Your task to perform on an android device: change the clock style Image 0: 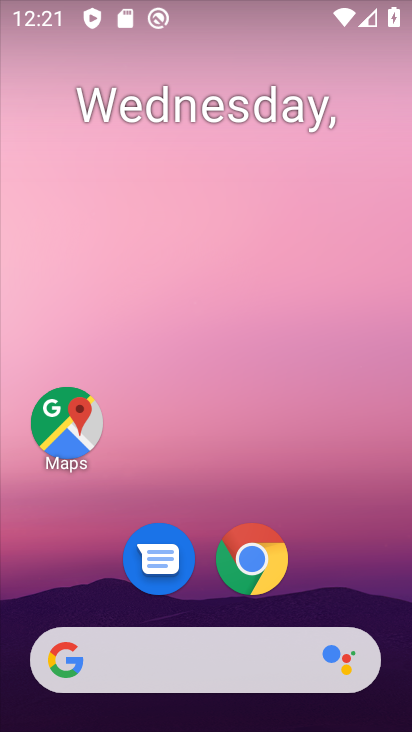
Step 0: drag from (202, 582) to (283, 80)
Your task to perform on an android device: change the clock style Image 1: 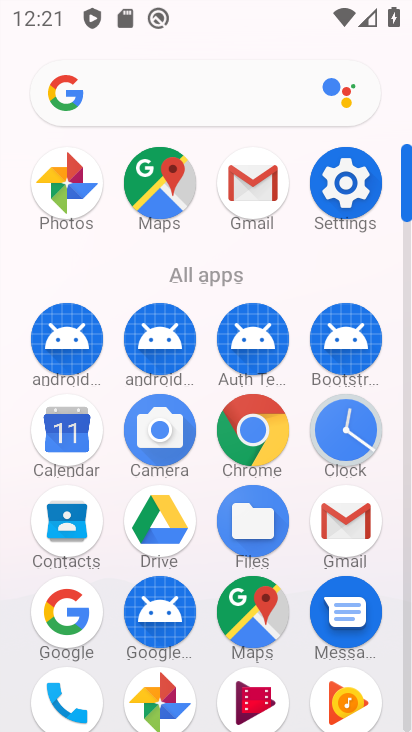
Step 1: click (350, 452)
Your task to perform on an android device: change the clock style Image 2: 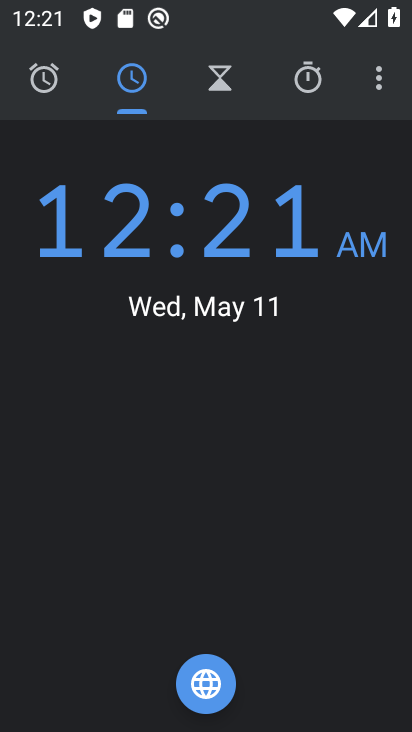
Step 2: click (381, 85)
Your task to perform on an android device: change the clock style Image 3: 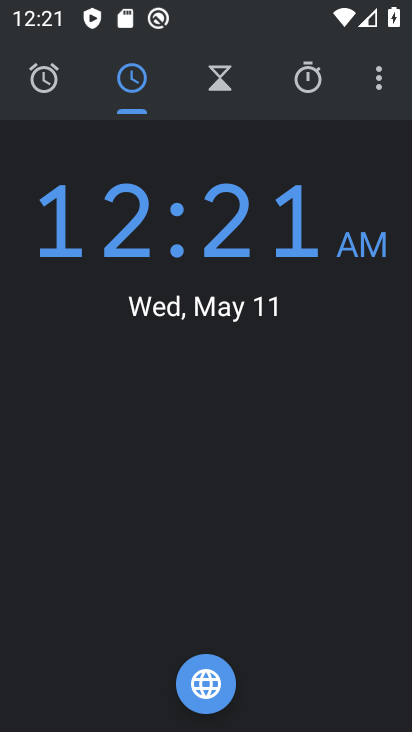
Step 3: click (363, 87)
Your task to perform on an android device: change the clock style Image 4: 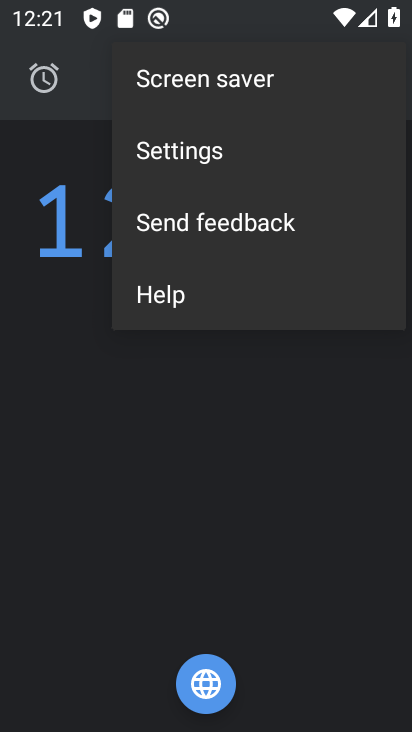
Step 4: click (212, 157)
Your task to perform on an android device: change the clock style Image 5: 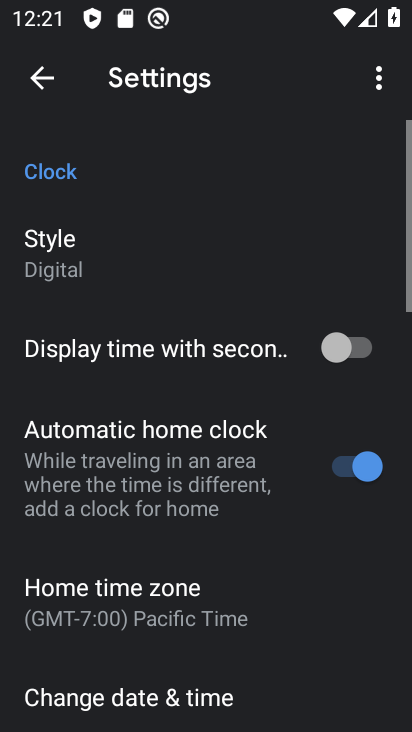
Step 5: click (57, 270)
Your task to perform on an android device: change the clock style Image 6: 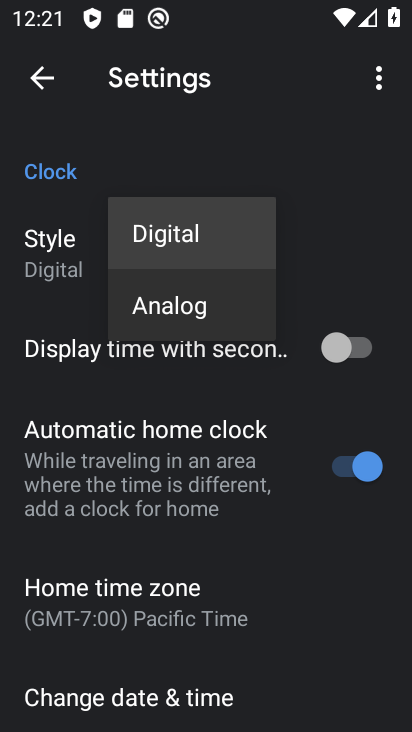
Step 6: click (166, 300)
Your task to perform on an android device: change the clock style Image 7: 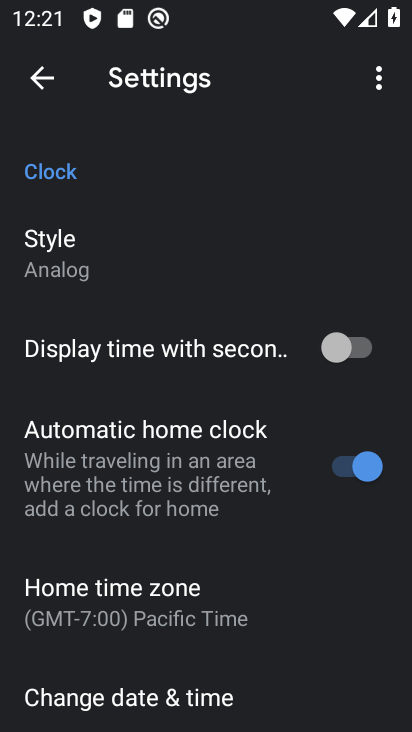
Step 7: task complete